Your task to perform on an android device: Go to Wikipedia Image 0: 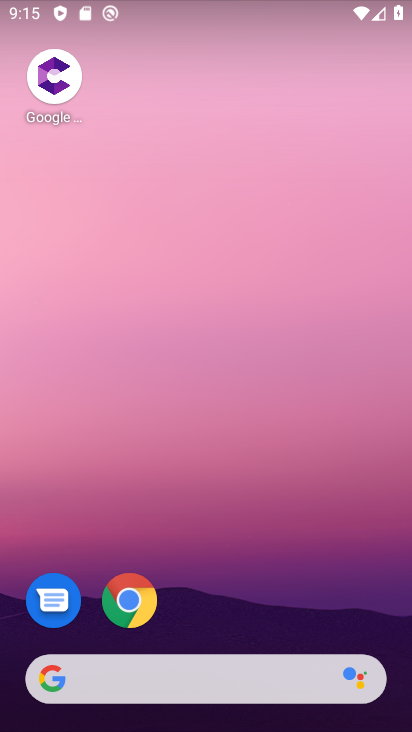
Step 0: click (147, 600)
Your task to perform on an android device: Go to Wikipedia Image 1: 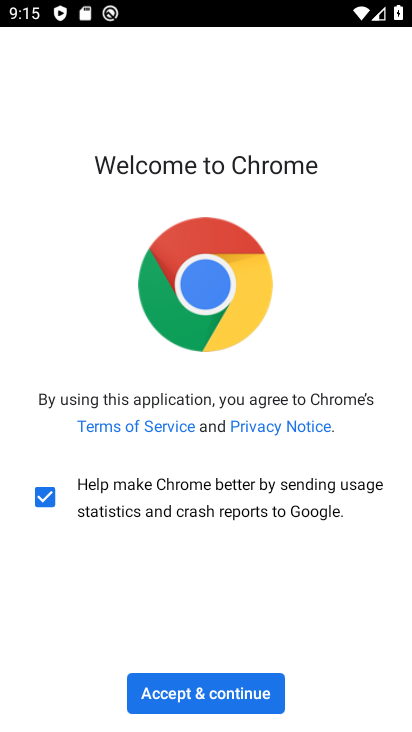
Step 1: click (227, 682)
Your task to perform on an android device: Go to Wikipedia Image 2: 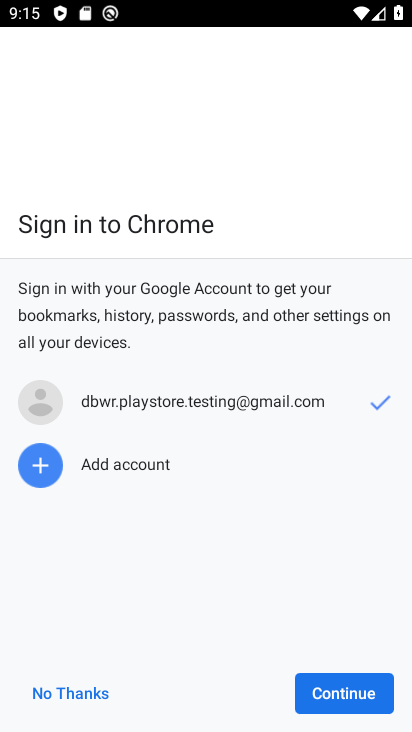
Step 2: click (359, 690)
Your task to perform on an android device: Go to Wikipedia Image 3: 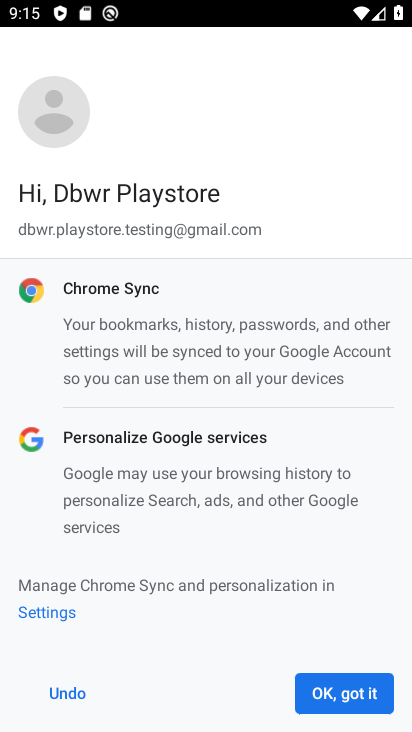
Step 3: click (347, 691)
Your task to perform on an android device: Go to Wikipedia Image 4: 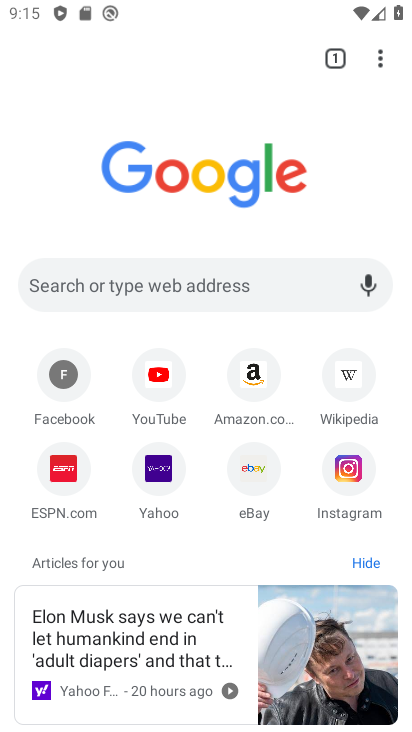
Step 4: click (196, 282)
Your task to perform on an android device: Go to Wikipedia Image 5: 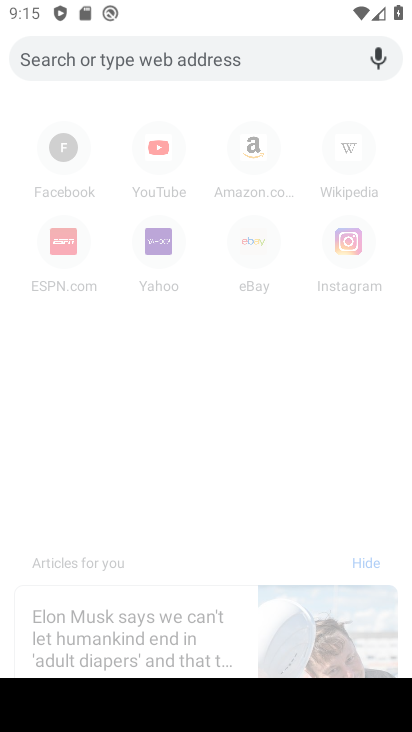
Step 5: type "Wikipedia"
Your task to perform on an android device: Go to Wikipedia Image 6: 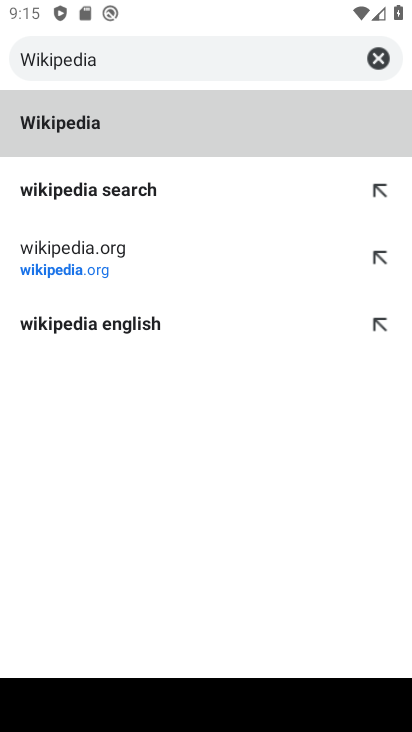
Step 6: click (64, 125)
Your task to perform on an android device: Go to Wikipedia Image 7: 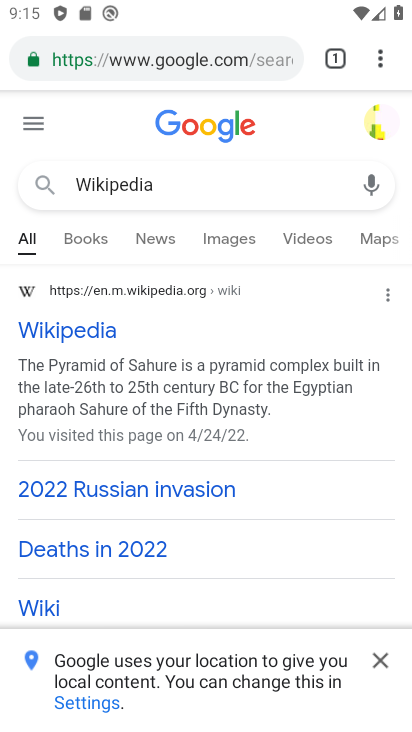
Step 7: task complete